Your task to perform on an android device: Show me recent news Image 0: 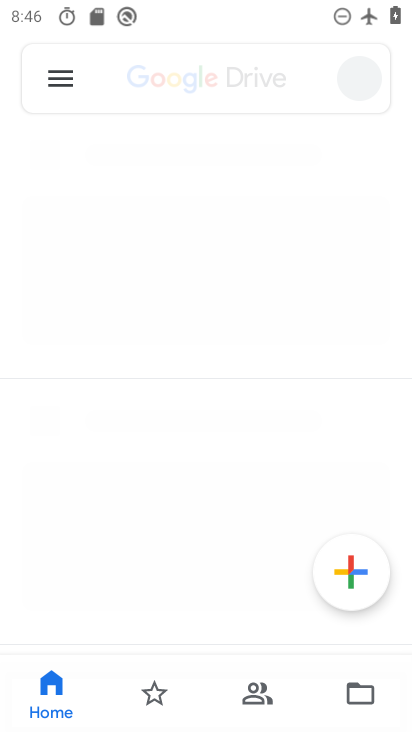
Step 0: drag from (396, 728) to (330, 180)
Your task to perform on an android device: Show me recent news Image 1: 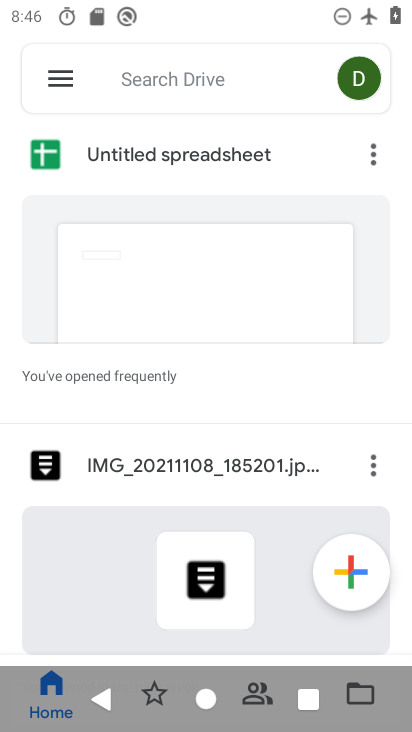
Step 1: task complete